Your task to perform on an android device: toggle improve location accuracy Image 0: 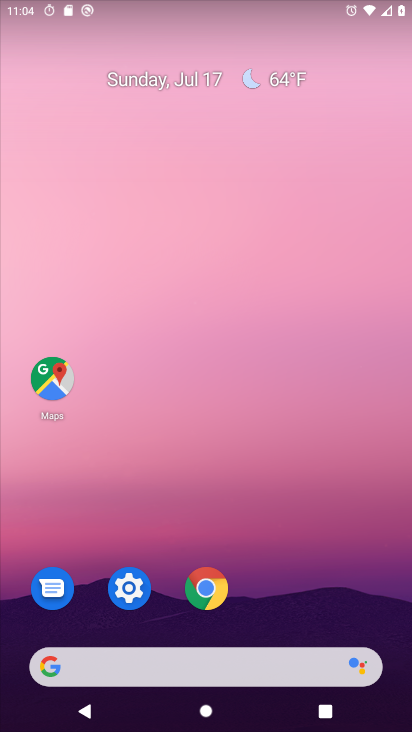
Step 0: drag from (223, 678) to (168, 309)
Your task to perform on an android device: toggle improve location accuracy Image 1: 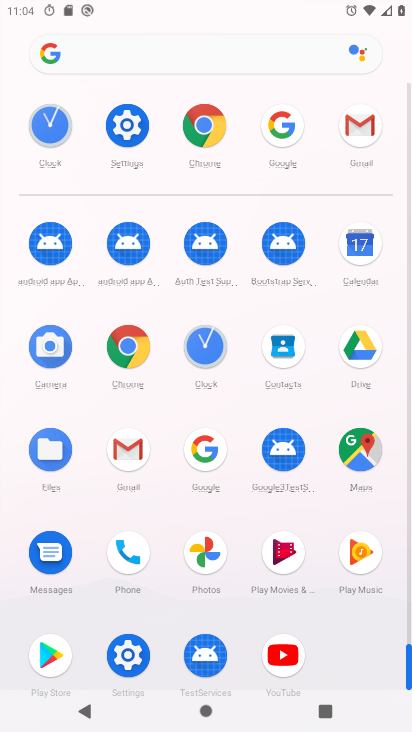
Step 1: click (117, 128)
Your task to perform on an android device: toggle improve location accuracy Image 2: 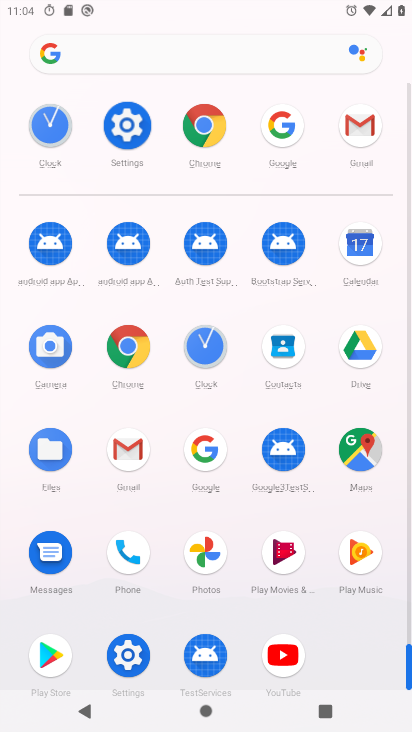
Step 2: click (115, 128)
Your task to perform on an android device: toggle improve location accuracy Image 3: 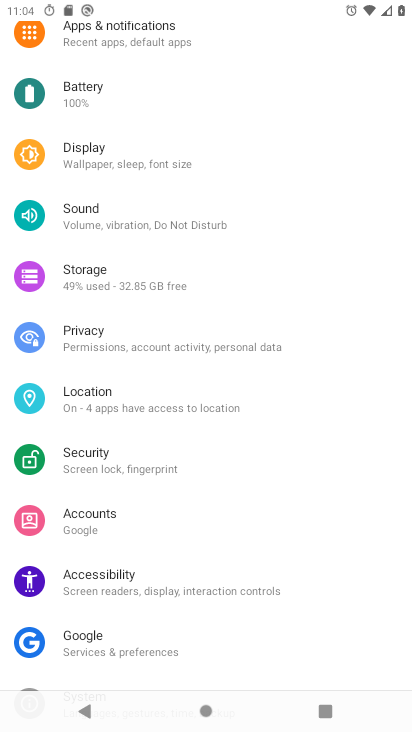
Step 3: click (96, 401)
Your task to perform on an android device: toggle improve location accuracy Image 4: 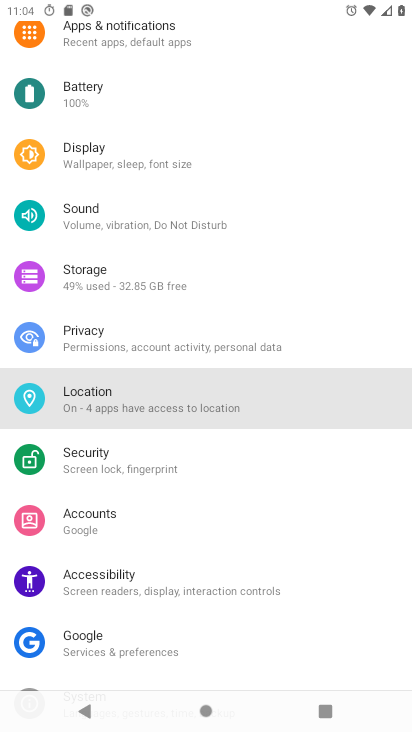
Step 4: click (95, 402)
Your task to perform on an android device: toggle improve location accuracy Image 5: 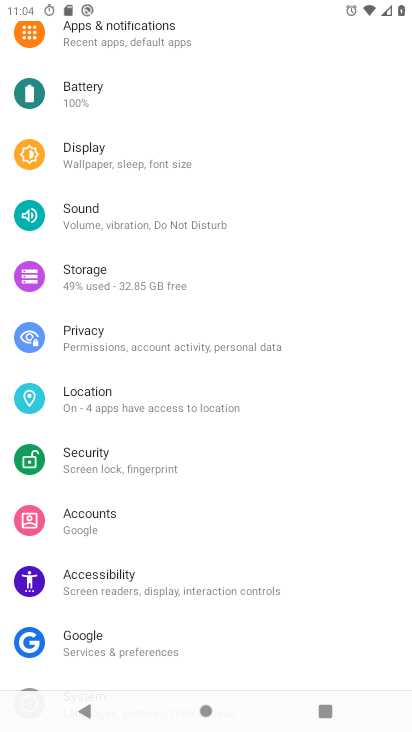
Step 5: click (95, 402)
Your task to perform on an android device: toggle improve location accuracy Image 6: 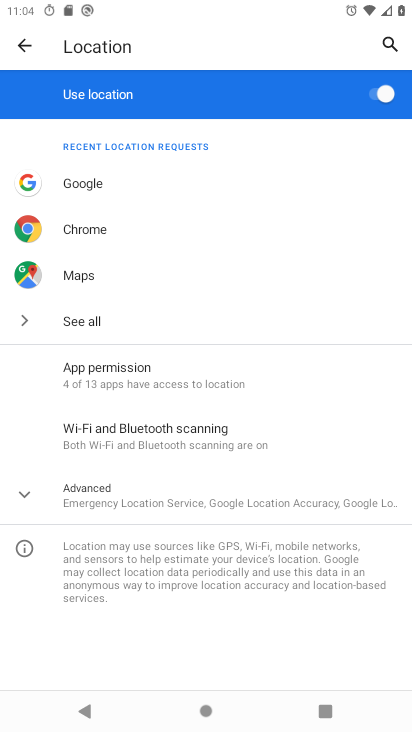
Step 6: click (104, 493)
Your task to perform on an android device: toggle improve location accuracy Image 7: 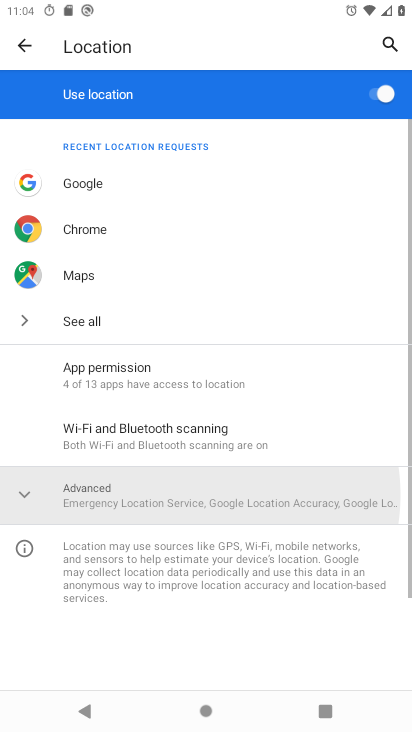
Step 7: click (105, 493)
Your task to perform on an android device: toggle improve location accuracy Image 8: 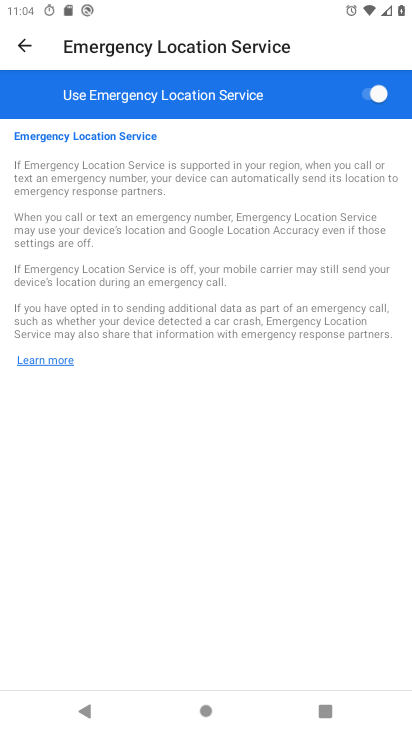
Step 8: click (34, 44)
Your task to perform on an android device: toggle improve location accuracy Image 9: 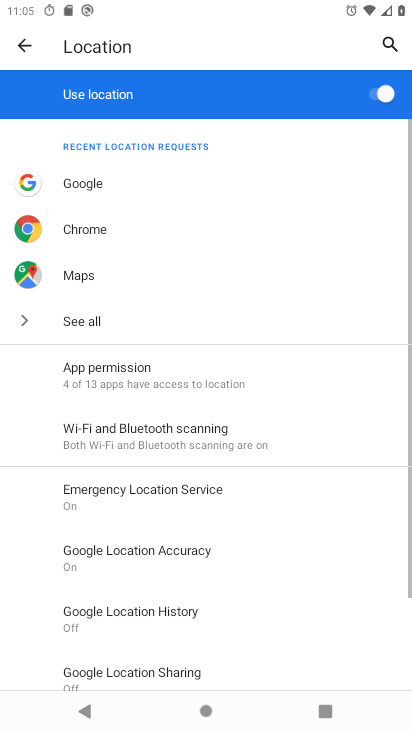
Step 9: click (152, 556)
Your task to perform on an android device: toggle improve location accuracy Image 10: 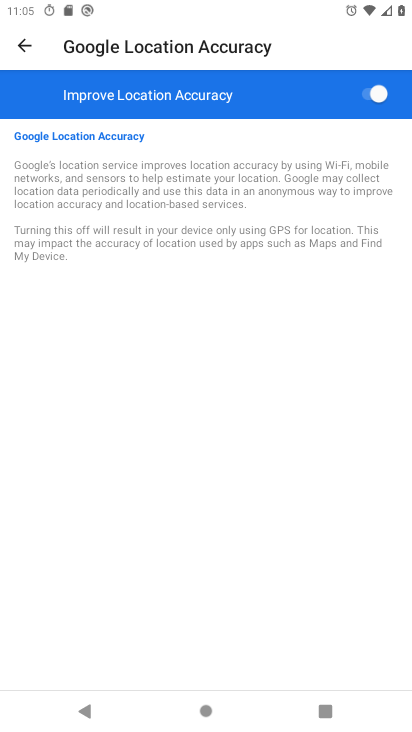
Step 10: click (372, 90)
Your task to perform on an android device: toggle improve location accuracy Image 11: 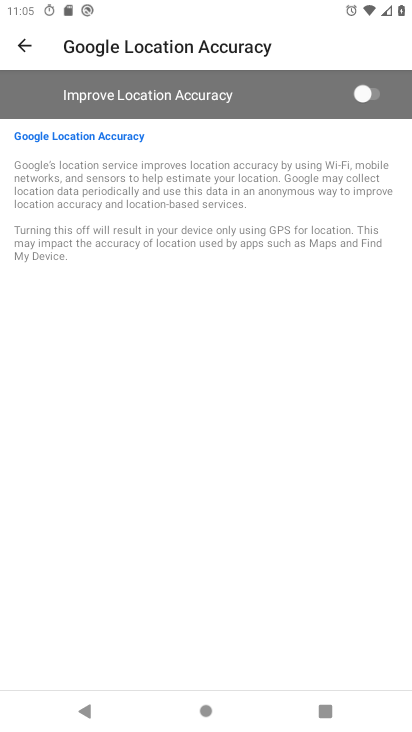
Step 11: task complete